Your task to perform on an android device: Turn off the flashlight Image 0: 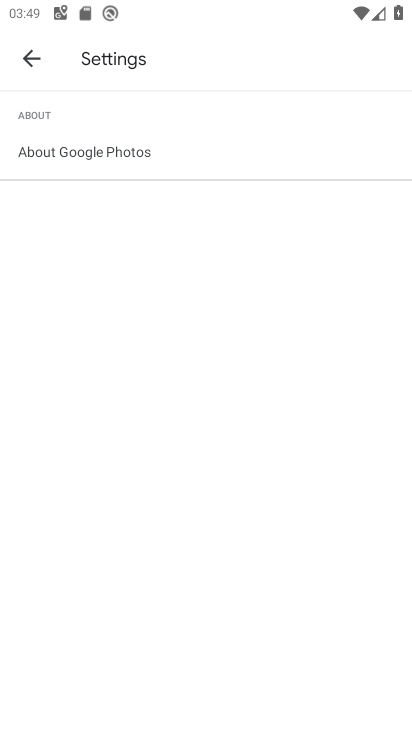
Step 0: press home button
Your task to perform on an android device: Turn off the flashlight Image 1: 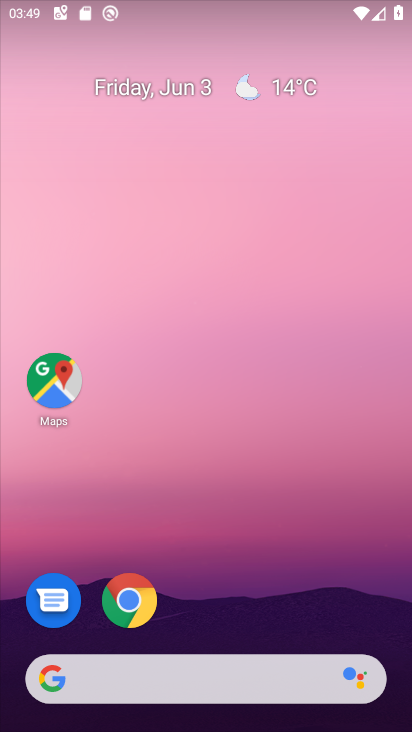
Step 1: drag from (286, 577) to (203, 156)
Your task to perform on an android device: Turn off the flashlight Image 2: 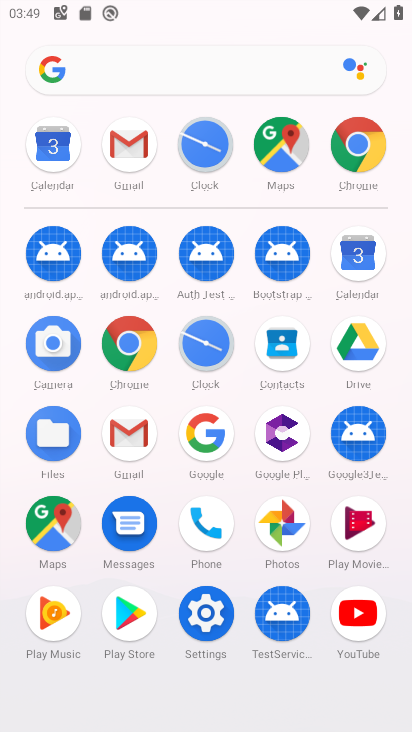
Step 2: click (215, 618)
Your task to perform on an android device: Turn off the flashlight Image 3: 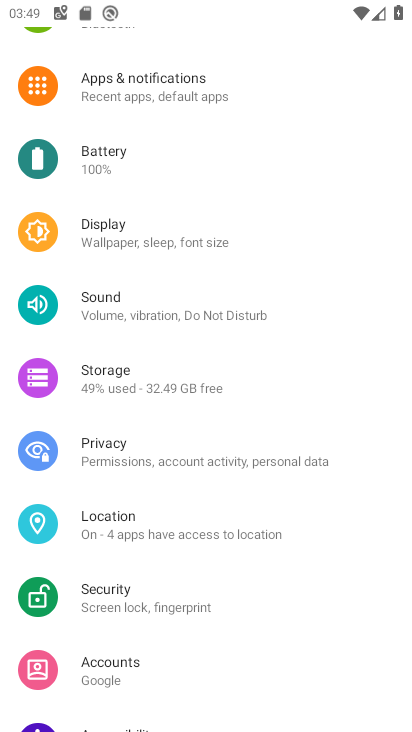
Step 3: drag from (194, 162) to (194, 622)
Your task to perform on an android device: Turn off the flashlight Image 4: 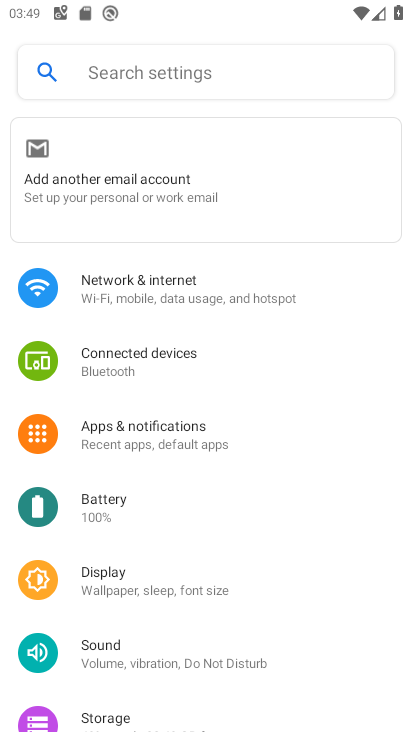
Step 4: click (170, 579)
Your task to perform on an android device: Turn off the flashlight Image 5: 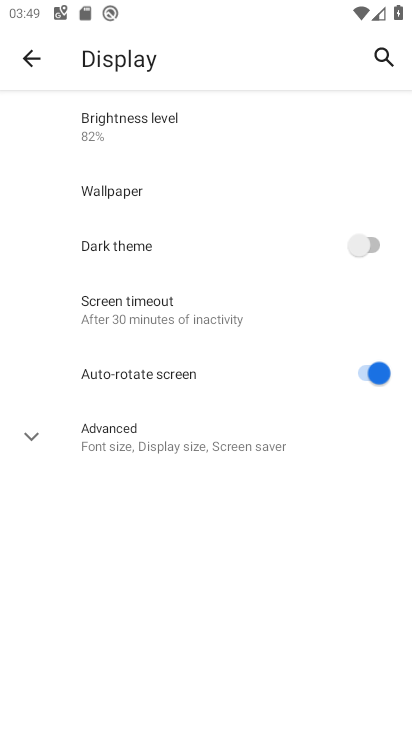
Step 5: task complete